Your task to perform on an android device: toggle show notifications on the lock screen Image 0: 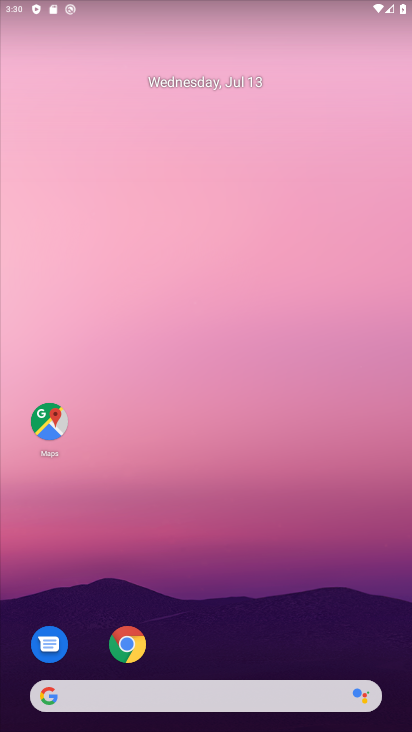
Step 0: drag from (203, 640) to (282, 4)
Your task to perform on an android device: toggle show notifications on the lock screen Image 1: 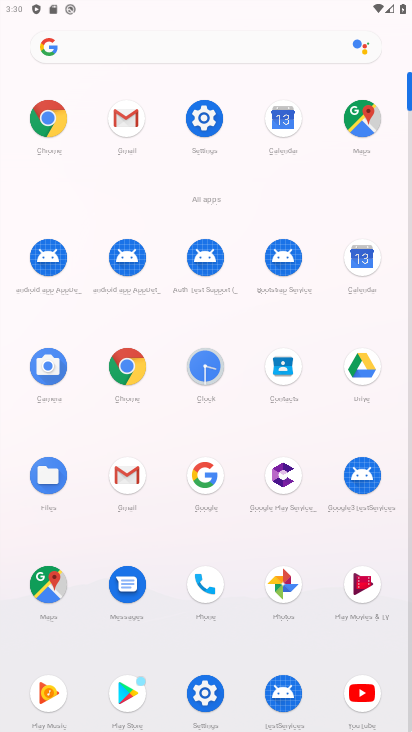
Step 1: click (208, 107)
Your task to perform on an android device: toggle show notifications on the lock screen Image 2: 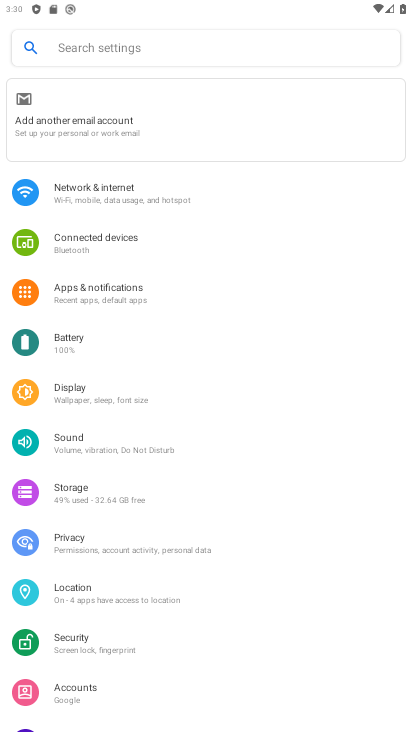
Step 2: click (113, 287)
Your task to perform on an android device: toggle show notifications on the lock screen Image 3: 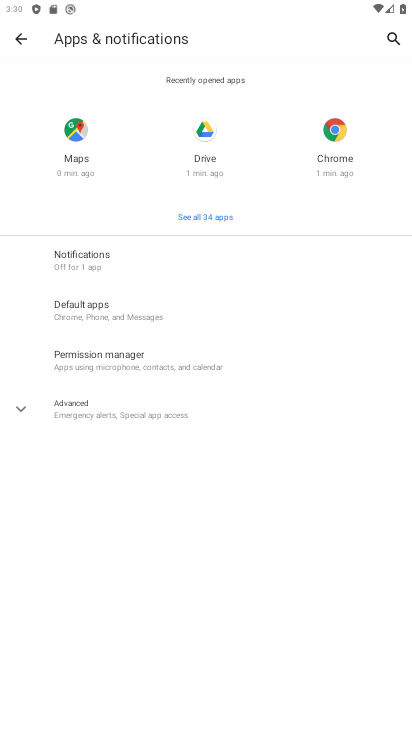
Step 3: click (119, 261)
Your task to perform on an android device: toggle show notifications on the lock screen Image 4: 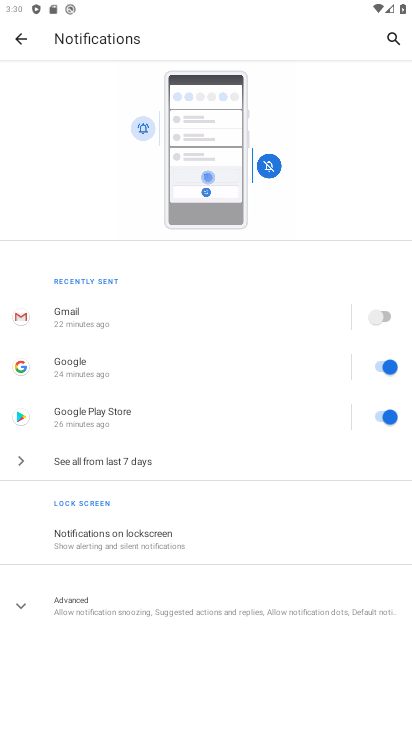
Step 4: click (129, 540)
Your task to perform on an android device: toggle show notifications on the lock screen Image 5: 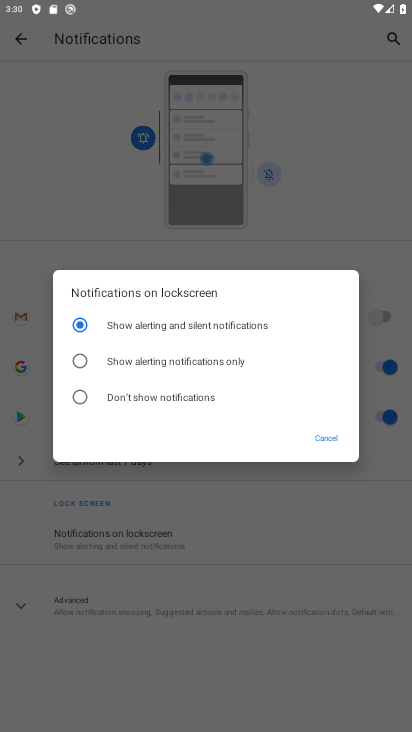
Step 5: click (80, 322)
Your task to perform on an android device: toggle show notifications on the lock screen Image 6: 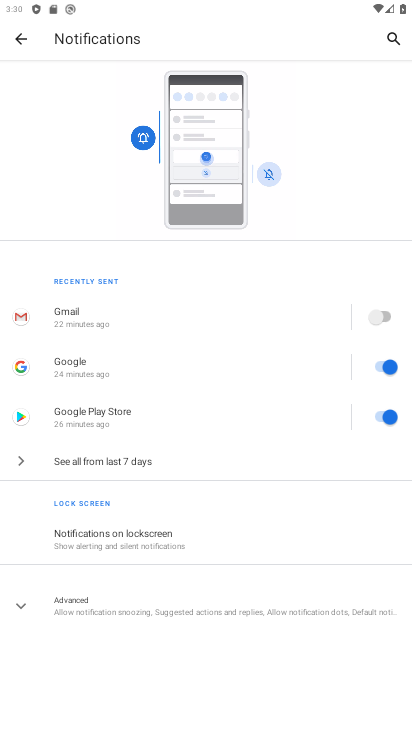
Step 6: task complete